Your task to perform on an android device: check the backup settings in the google photos Image 0: 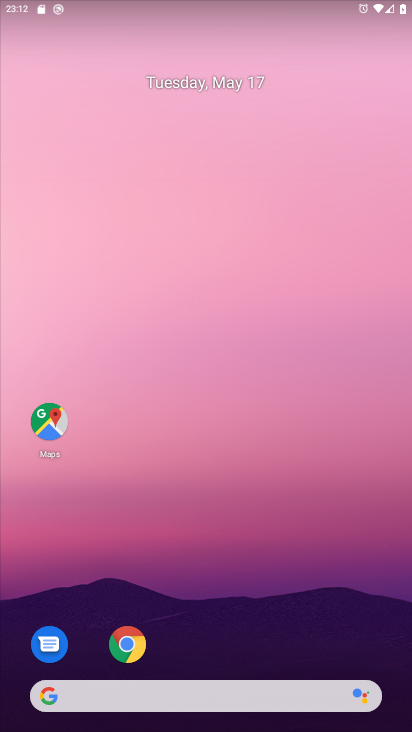
Step 0: press home button
Your task to perform on an android device: check the backup settings in the google photos Image 1: 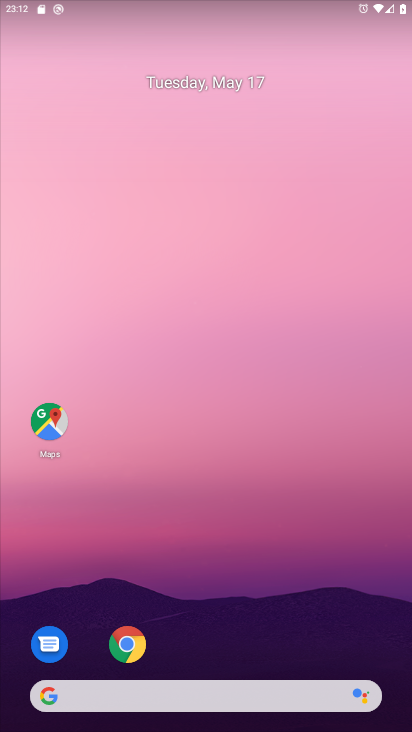
Step 1: press home button
Your task to perform on an android device: check the backup settings in the google photos Image 2: 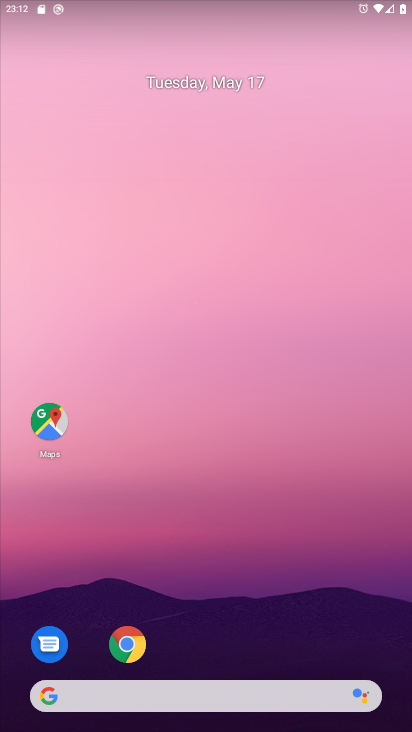
Step 2: drag from (201, 655) to (266, 152)
Your task to perform on an android device: check the backup settings in the google photos Image 3: 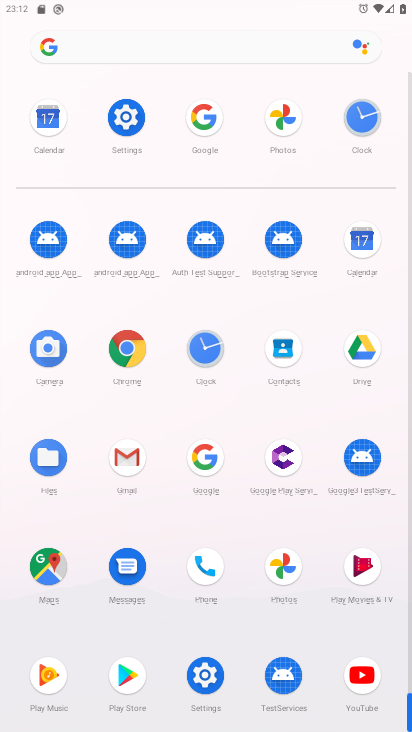
Step 3: click (278, 557)
Your task to perform on an android device: check the backup settings in the google photos Image 4: 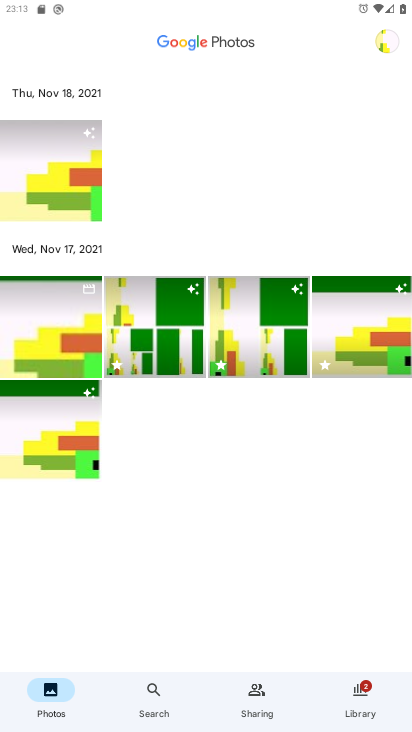
Step 4: click (387, 41)
Your task to perform on an android device: check the backup settings in the google photos Image 5: 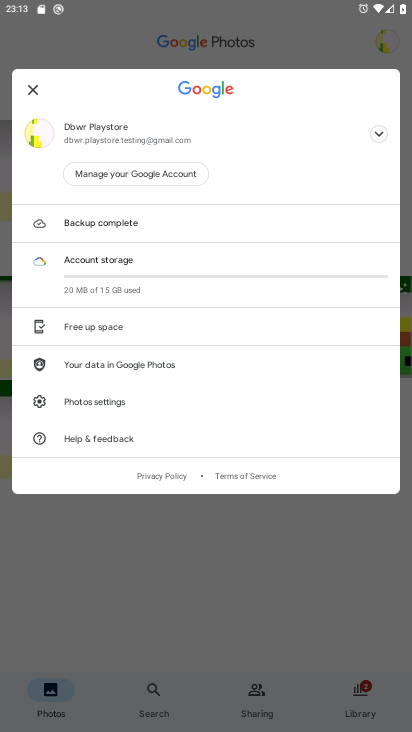
Step 5: click (144, 222)
Your task to perform on an android device: check the backup settings in the google photos Image 6: 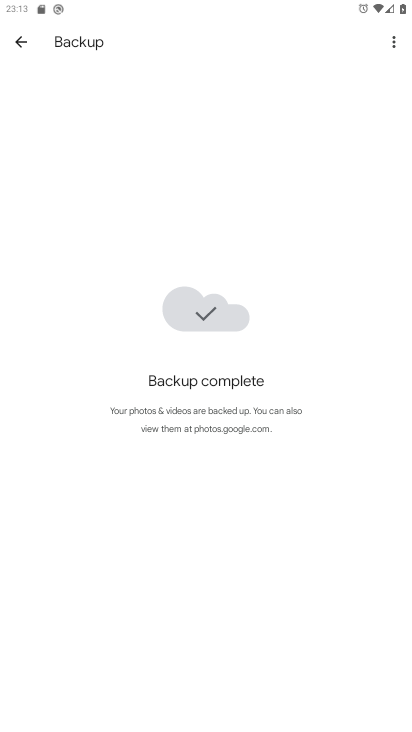
Step 6: click (388, 38)
Your task to perform on an android device: check the backup settings in the google photos Image 7: 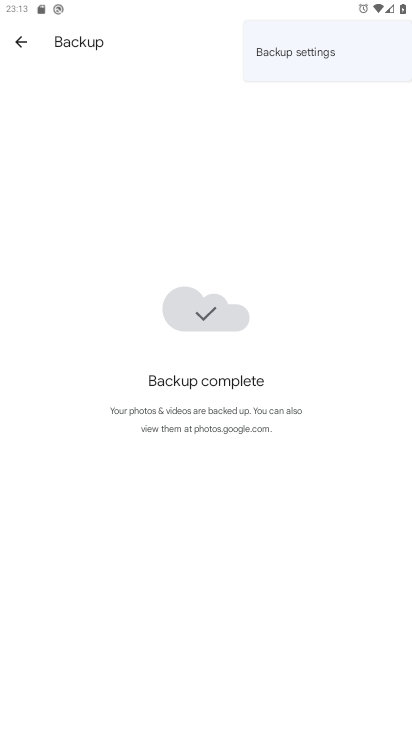
Step 7: click (287, 54)
Your task to perform on an android device: check the backup settings in the google photos Image 8: 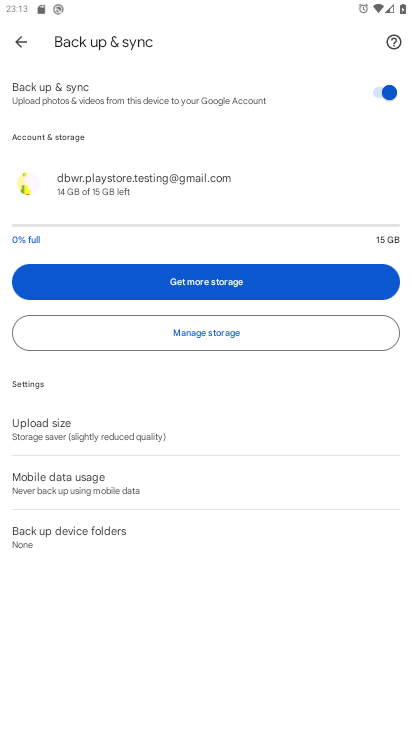
Step 8: task complete